Your task to perform on an android device: change text size in settings app Image 0: 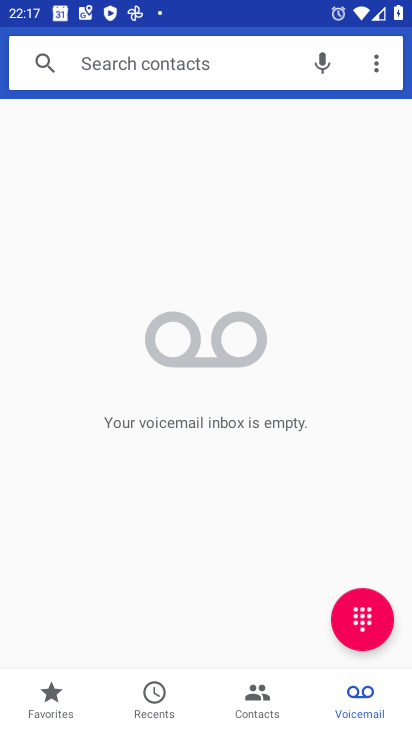
Step 0: press home button
Your task to perform on an android device: change text size in settings app Image 1: 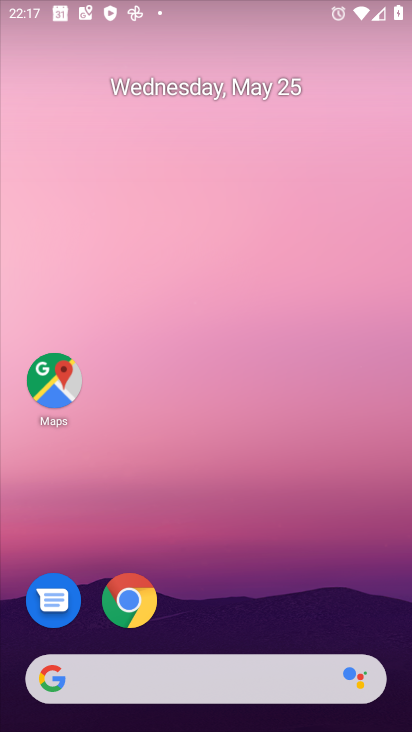
Step 1: drag from (369, 603) to (335, 258)
Your task to perform on an android device: change text size in settings app Image 2: 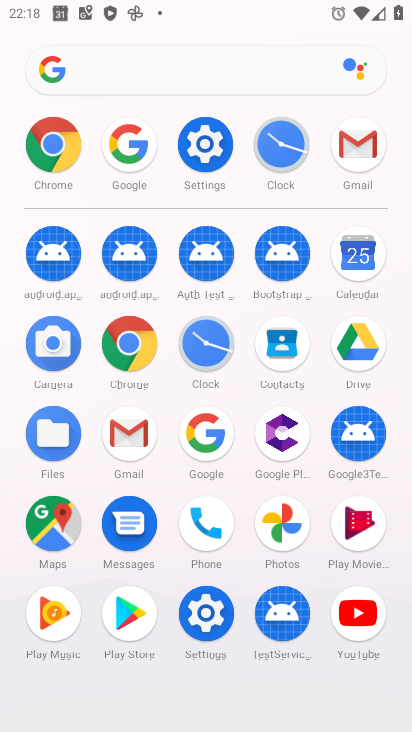
Step 2: click (188, 630)
Your task to perform on an android device: change text size in settings app Image 3: 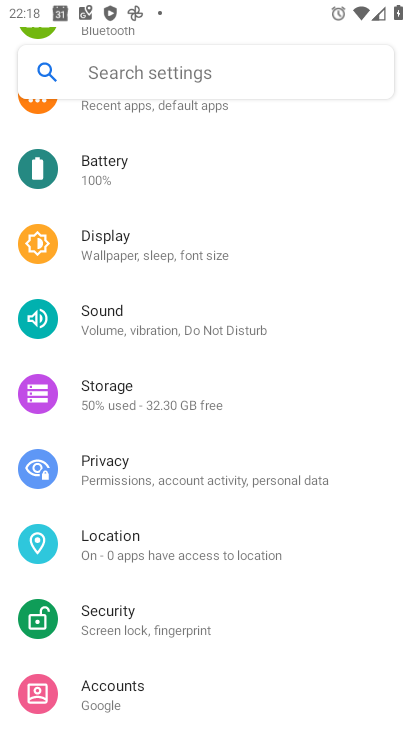
Step 3: click (180, 252)
Your task to perform on an android device: change text size in settings app Image 4: 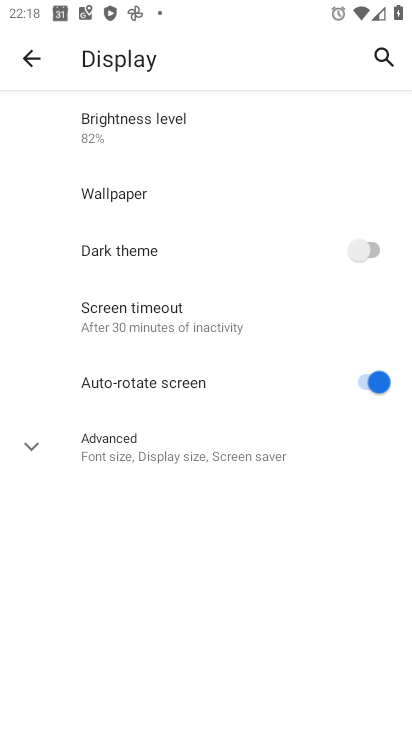
Step 4: click (190, 458)
Your task to perform on an android device: change text size in settings app Image 5: 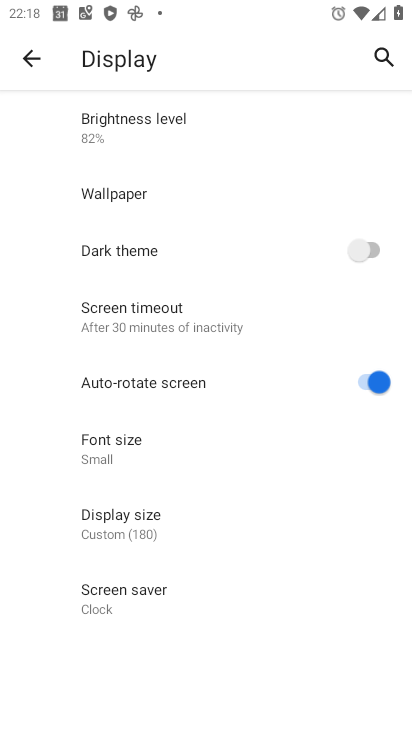
Step 5: click (144, 440)
Your task to perform on an android device: change text size in settings app Image 6: 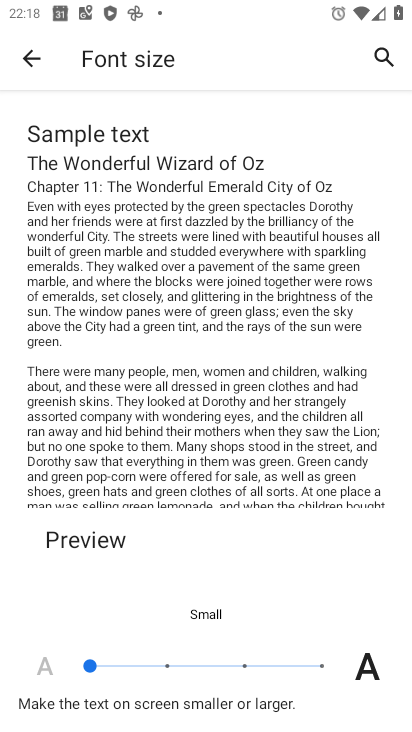
Step 6: click (165, 660)
Your task to perform on an android device: change text size in settings app Image 7: 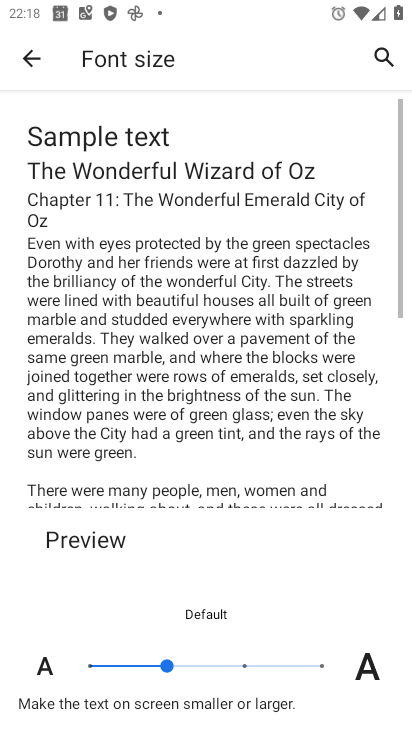
Step 7: task complete